Your task to perform on an android device: See recent photos Image 0: 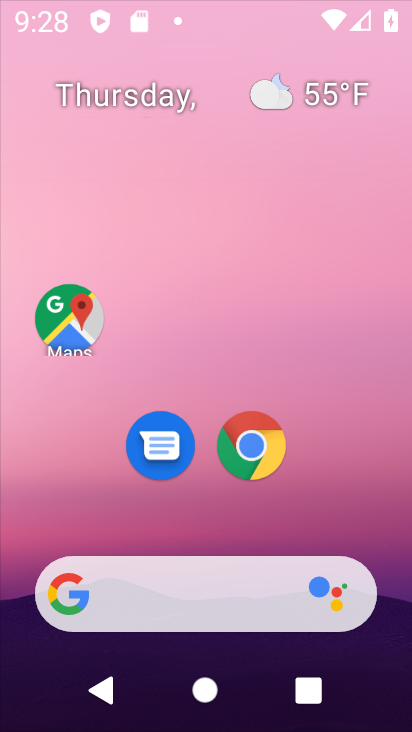
Step 0: drag from (187, 377) to (221, 148)
Your task to perform on an android device: See recent photos Image 1: 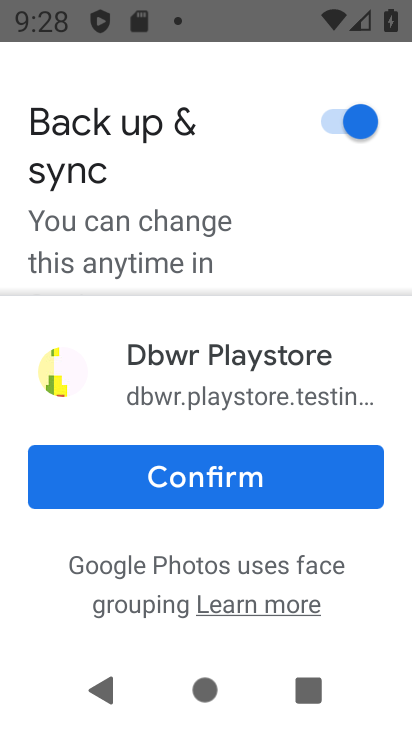
Step 1: click (189, 466)
Your task to perform on an android device: See recent photos Image 2: 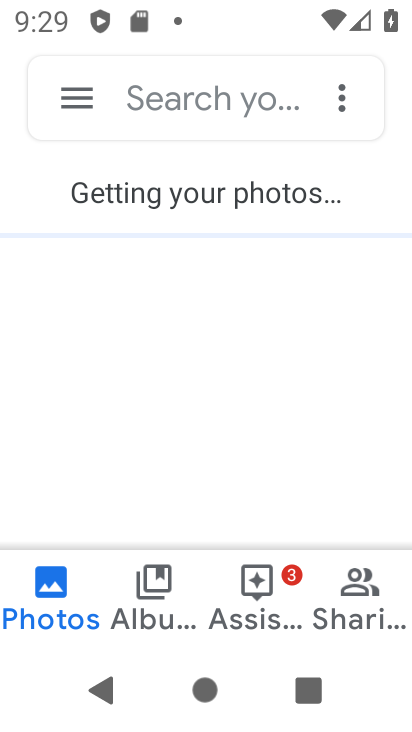
Step 2: click (171, 600)
Your task to perform on an android device: See recent photos Image 3: 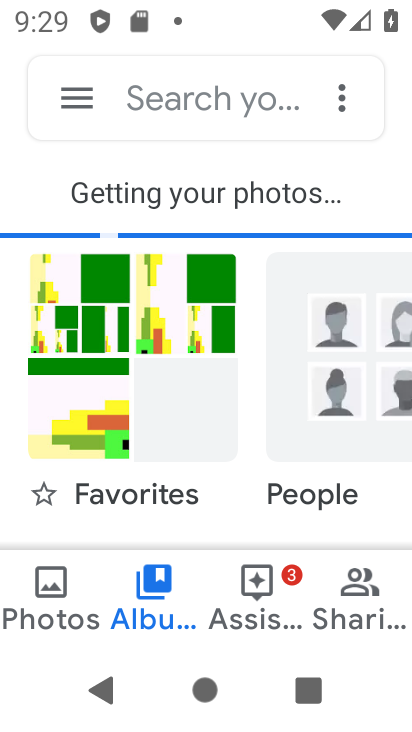
Step 3: click (41, 597)
Your task to perform on an android device: See recent photos Image 4: 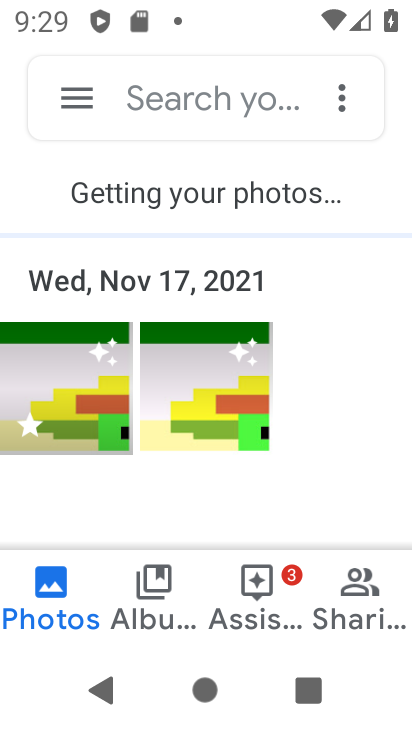
Step 4: click (77, 369)
Your task to perform on an android device: See recent photos Image 5: 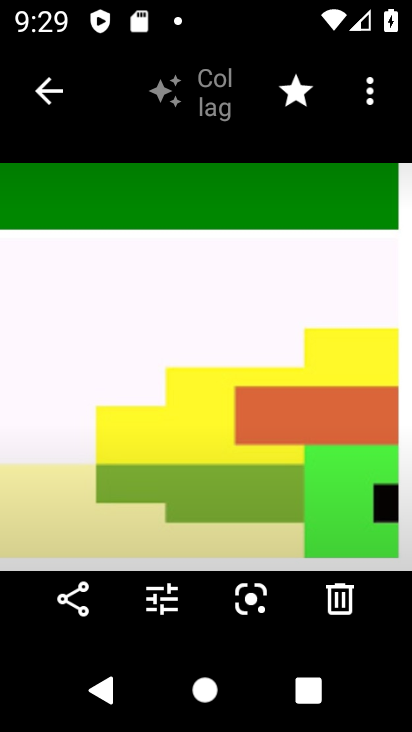
Step 5: task complete